Your task to perform on an android device: open app "Microsoft Authenticator" Image 0: 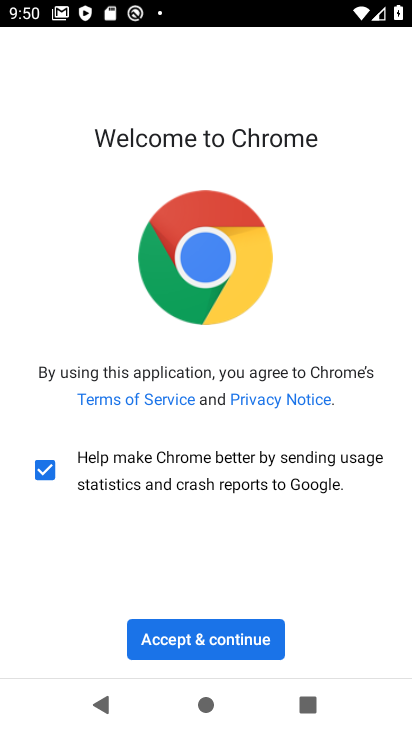
Step 0: press back button
Your task to perform on an android device: open app "Microsoft Authenticator" Image 1: 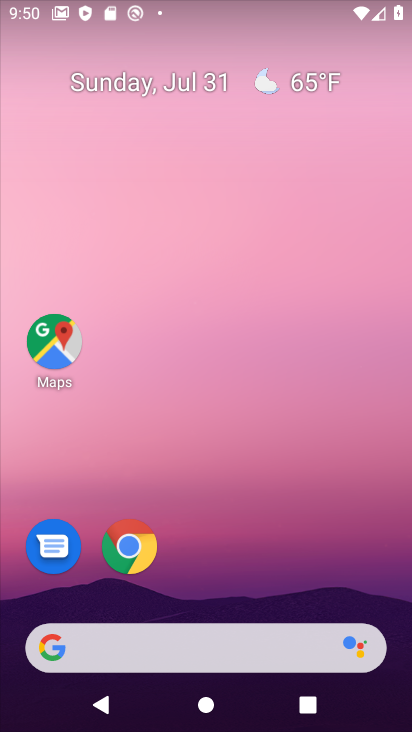
Step 1: drag from (237, 573) to (261, 23)
Your task to perform on an android device: open app "Microsoft Authenticator" Image 2: 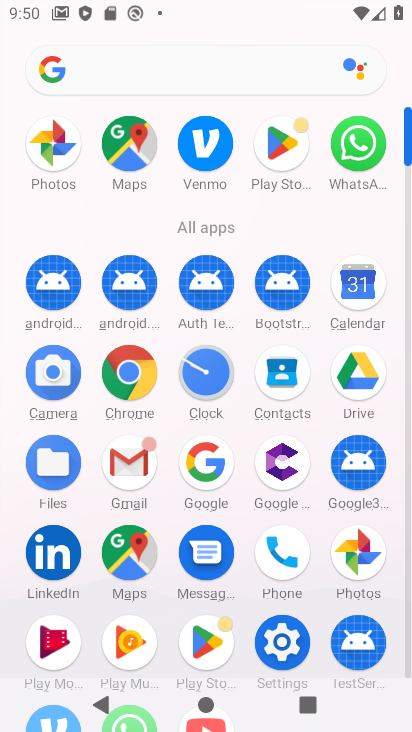
Step 2: click (283, 143)
Your task to perform on an android device: open app "Microsoft Authenticator" Image 3: 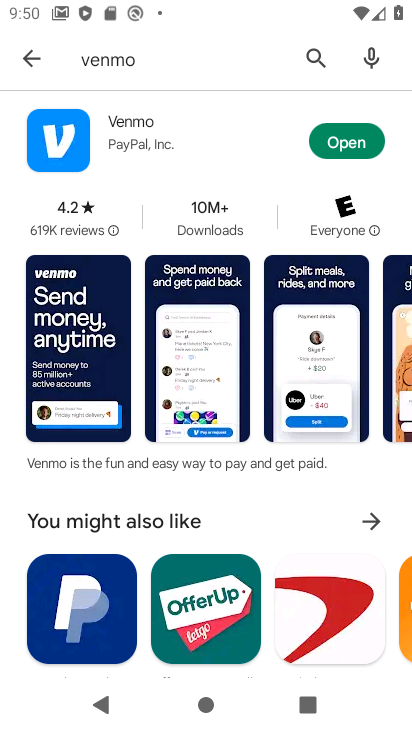
Step 3: click (307, 58)
Your task to perform on an android device: open app "Microsoft Authenticator" Image 4: 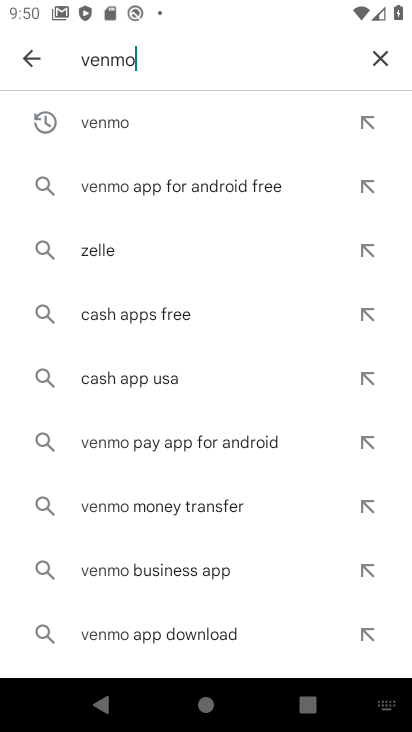
Step 4: click (380, 52)
Your task to perform on an android device: open app "Microsoft Authenticator" Image 5: 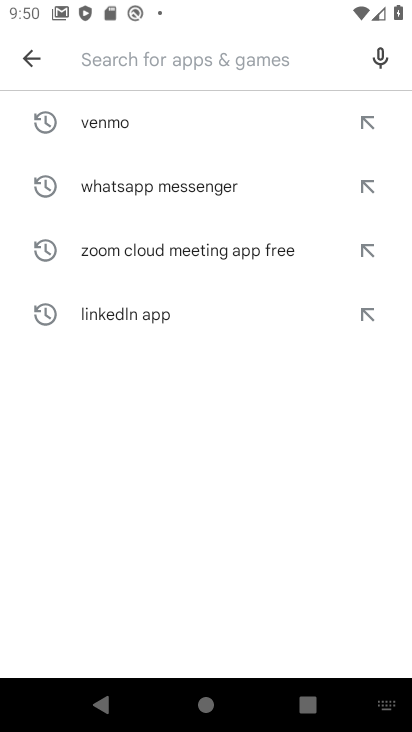
Step 5: click (205, 64)
Your task to perform on an android device: open app "Microsoft Authenticator" Image 6: 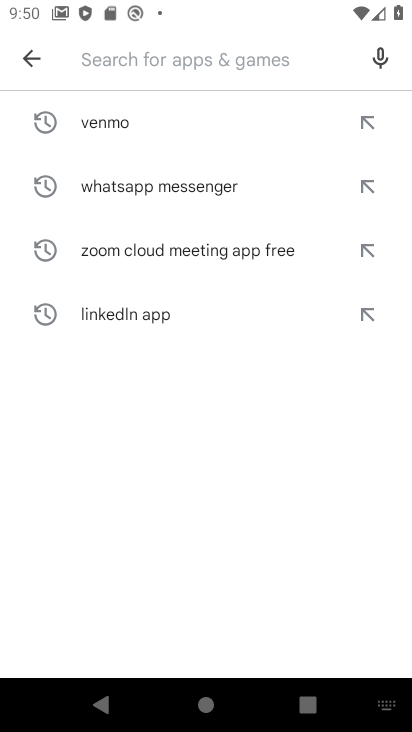
Step 6: type "microsoft authenticator"
Your task to perform on an android device: open app "Microsoft Authenticator" Image 7: 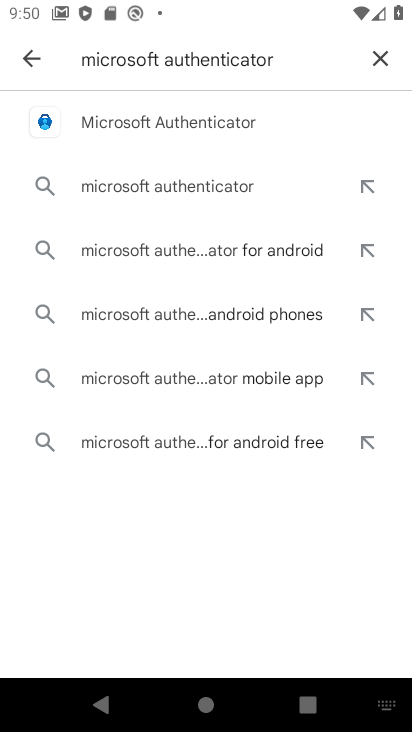
Step 7: click (156, 125)
Your task to perform on an android device: open app "Microsoft Authenticator" Image 8: 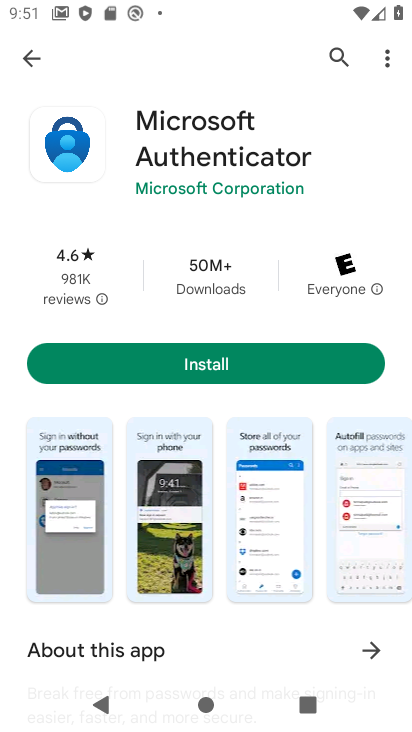
Step 8: task complete